Your task to perform on an android device: Check the weather Image 0: 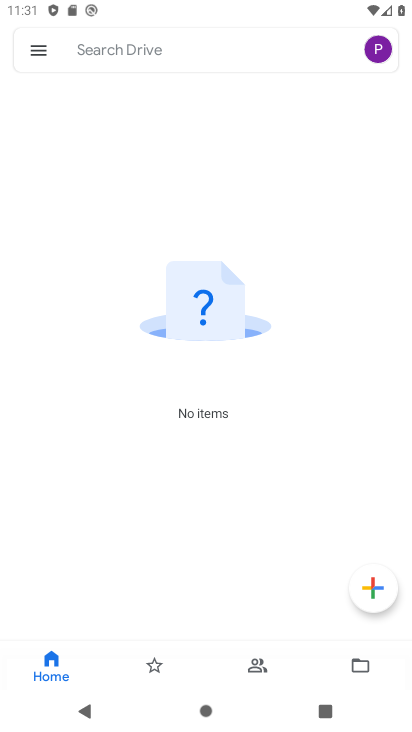
Step 0: press home button
Your task to perform on an android device: Check the weather Image 1: 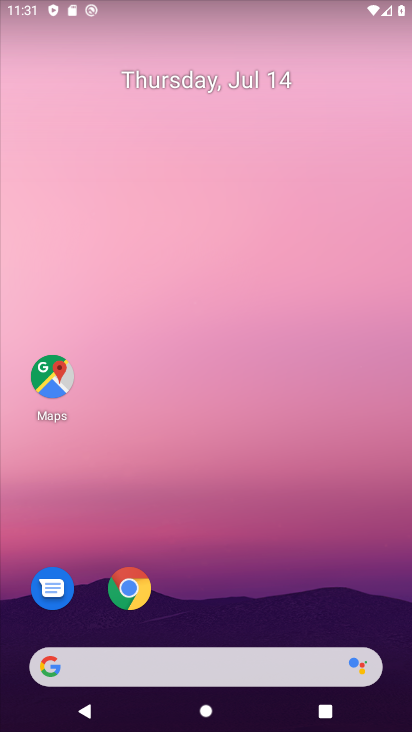
Step 1: drag from (229, 600) to (218, 199)
Your task to perform on an android device: Check the weather Image 2: 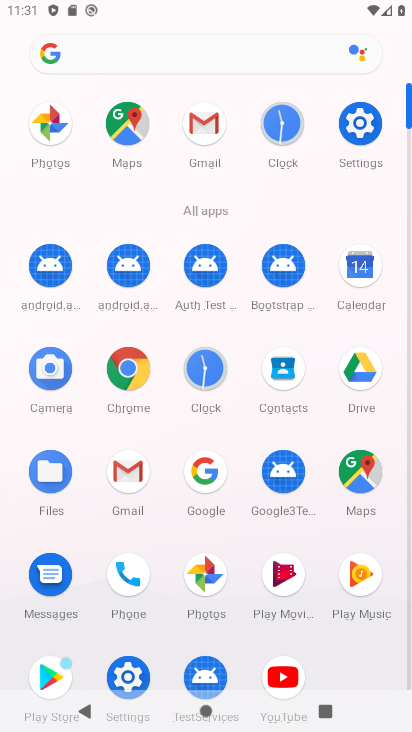
Step 2: click (126, 371)
Your task to perform on an android device: Check the weather Image 3: 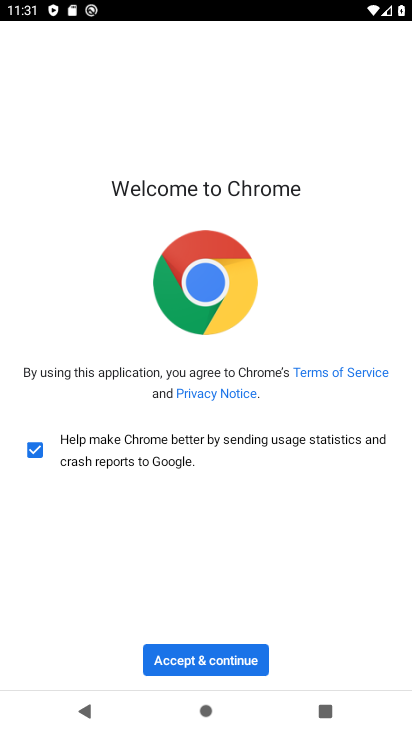
Step 3: click (231, 653)
Your task to perform on an android device: Check the weather Image 4: 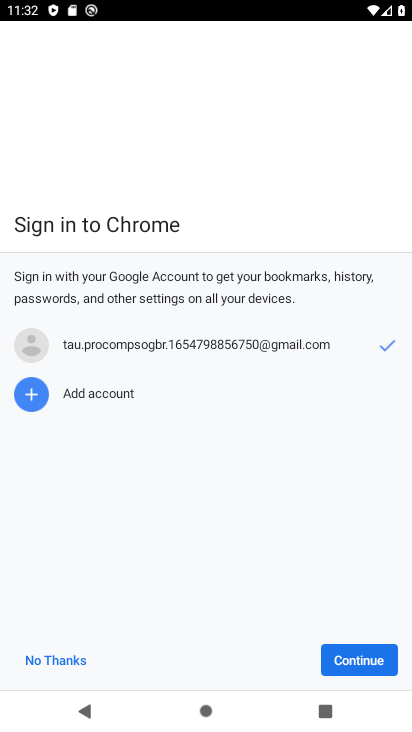
Step 4: click (341, 660)
Your task to perform on an android device: Check the weather Image 5: 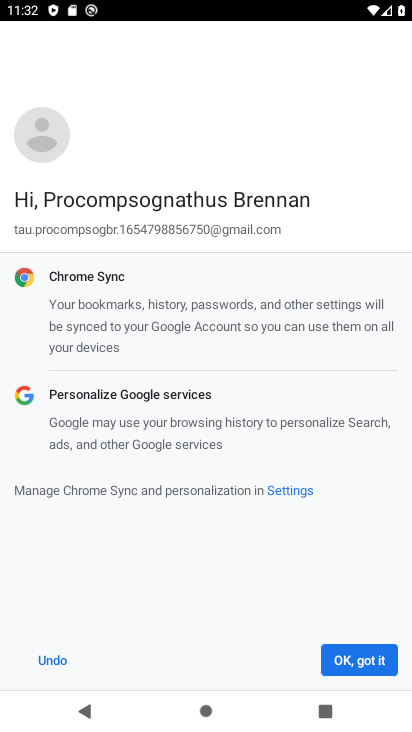
Step 5: click (346, 662)
Your task to perform on an android device: Check the weather Image 6: 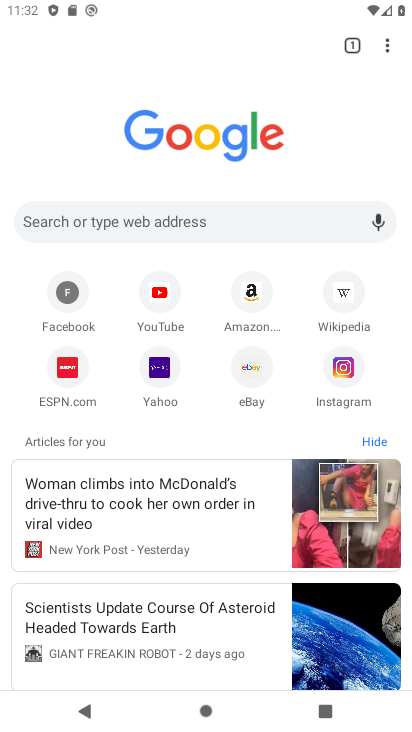
Step 6: click (209, 222)
Your task to perform on an android device: Check the weather Image 7: 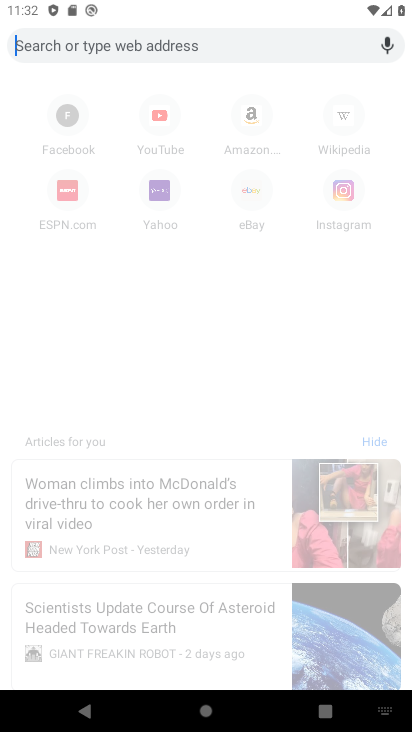
Step 7: type ""
Your task to perform on an android device: Check the weather Image 8: 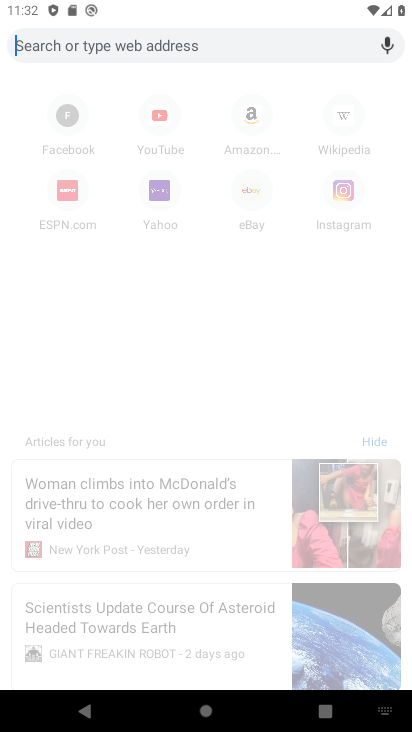
Step 8: type "Check the weather"
Your task to perform on an android device: Check the weather Image 9: 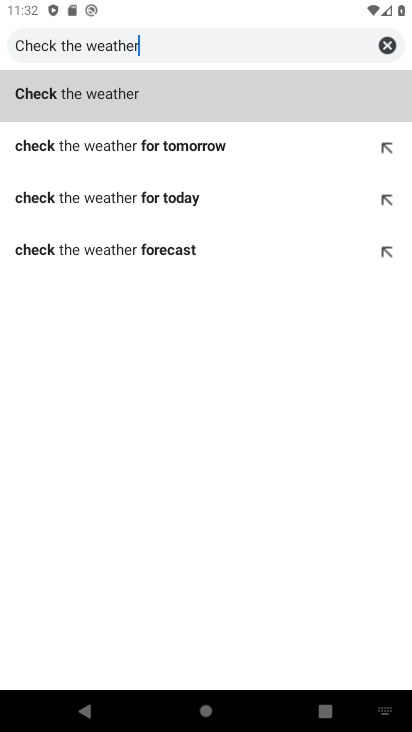
Step 9: click (229, 99)
Your task to perform on an android device: Check the weather Image 10: 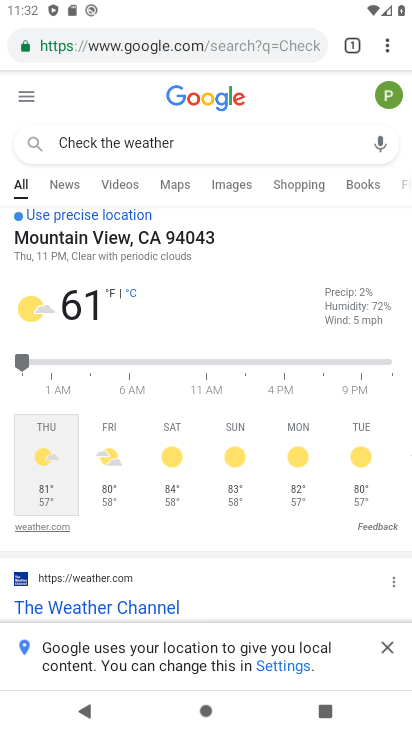
Step 10: task complete